Your task to perform on an android device: change notification settings in the gmail app Image 0: 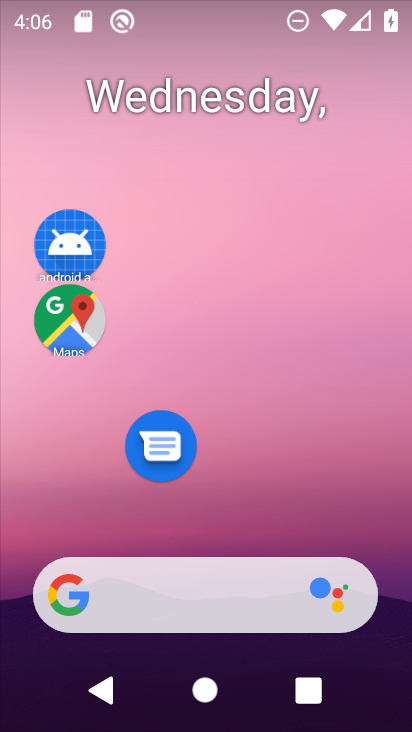
Step 0: drag from (263, 554) to (280, 150)
Your task to perform on an android device: change notification settings in the gmail app Image 1: 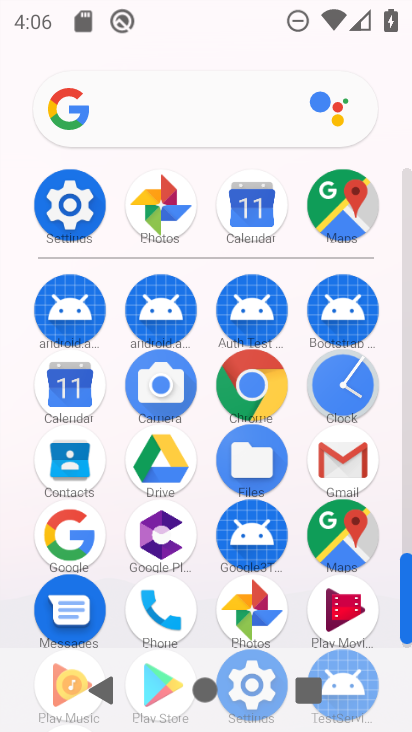
Step 1: click (334, 460)
Your task to perform on an android device: change notification settings in the gmail app Image 2: 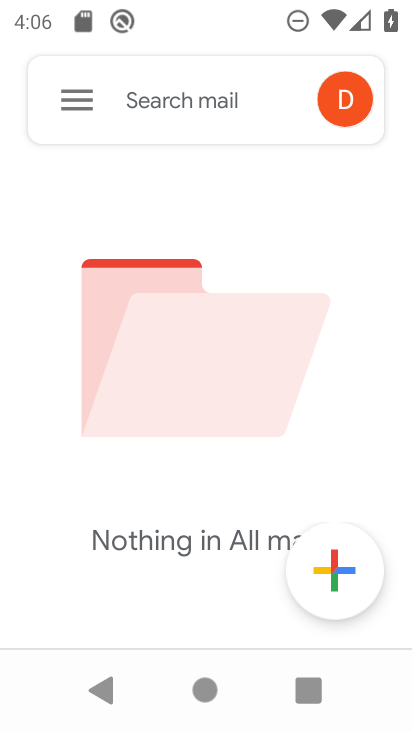
Step 2: click (94, 111)
Your task to perform on an android device: change notification settings in the gmail app Image 3: 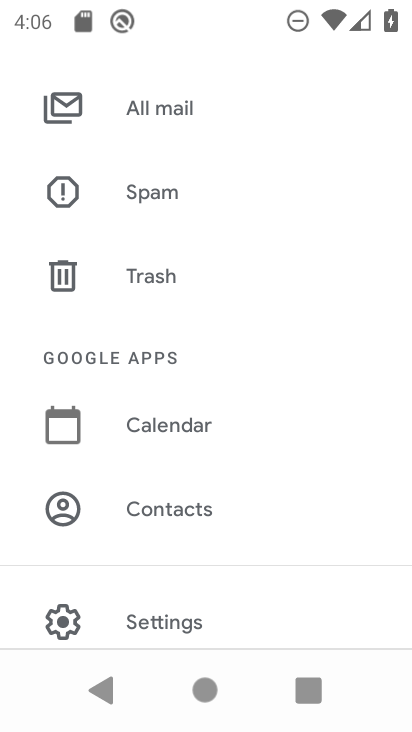
Step 3: drag from (100, 458) to (172, 239)
Your task to perform on an android device: change notification settings in the gmail app Image 4: 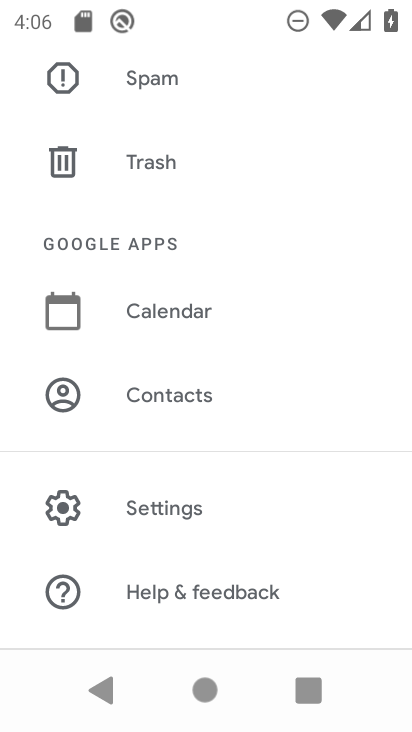
Step 4: click (149, 478)
Your task to perform on an android device: change notification settings in the gmail app Image 5: 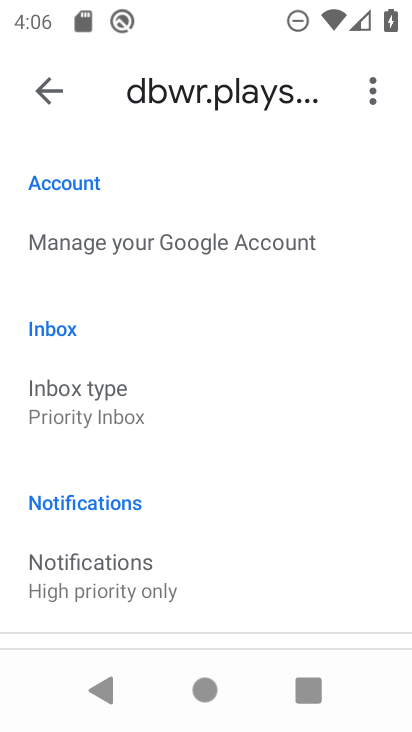
Step 5: drag from (117, 564) to (158, 292)
Your task to perform on an android device: change notification settings in the gmail app Image 6: 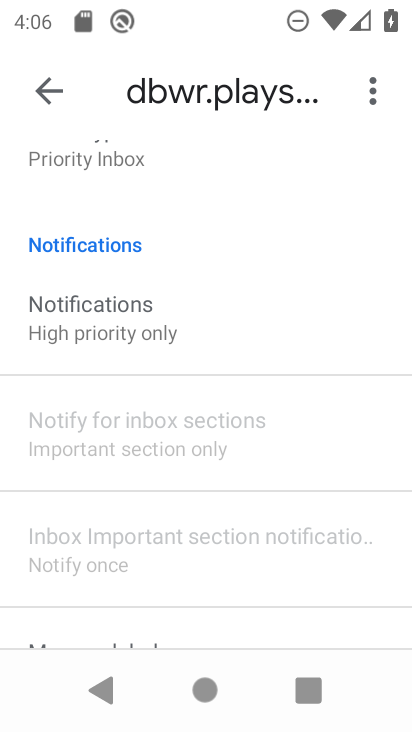
Step 6: drag from (125, 554) to (176, 343)
Your task to perform on an android device: change notification settings in the gmail app Image 7: 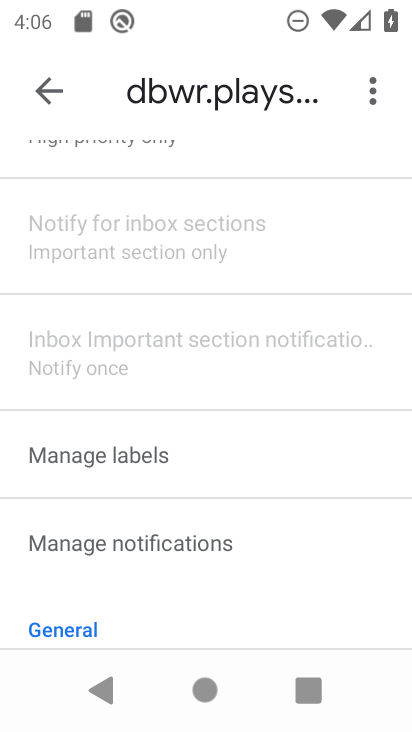
Step 7: click (119, 528)
Your task to perform on an android device: change notification settings in the gmail app Image 8: 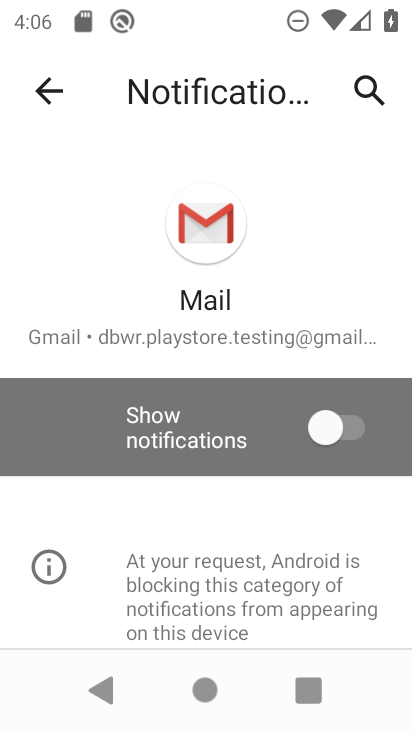
Step 8: click (322, 425)
Your task to perform on an android device: change notification settings in the gmail app Image 9: 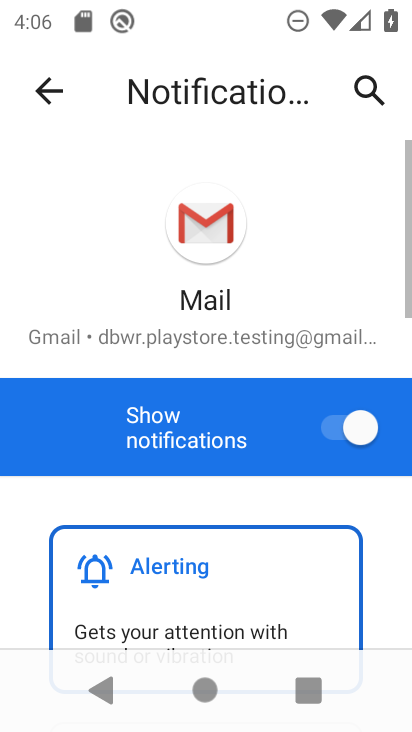
Step 9: task complete